Your task to perform on an android device: Go to sound settings Image 0: 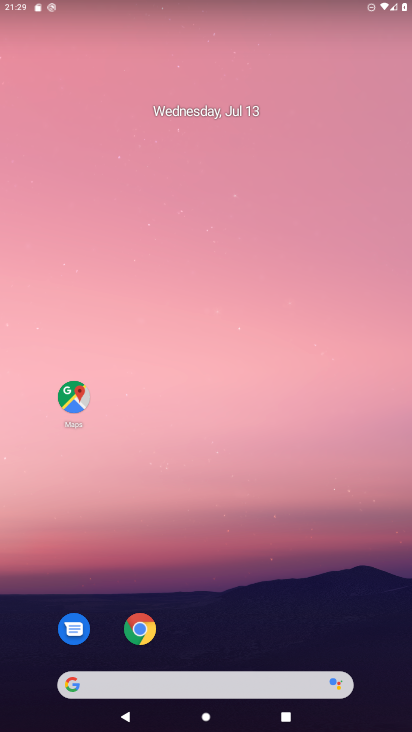
Step 0: drag from (182, 634) to (172, 115)
Your task to perform on an android device: Go to sound settings Image 1: 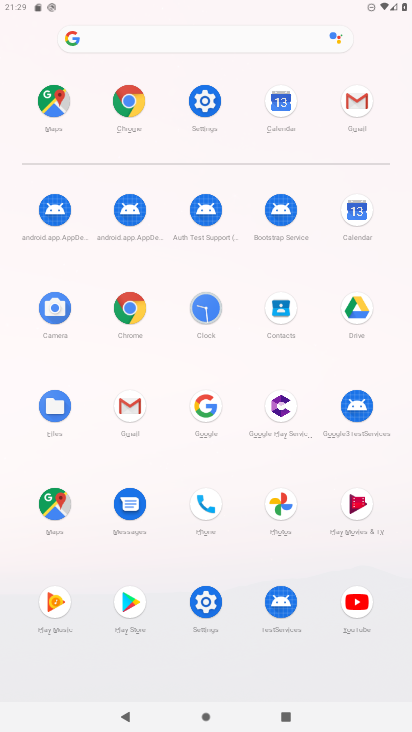
Step 1: click (196, 595)
Your task to perform on an android device: Go to sound settings Image 2: 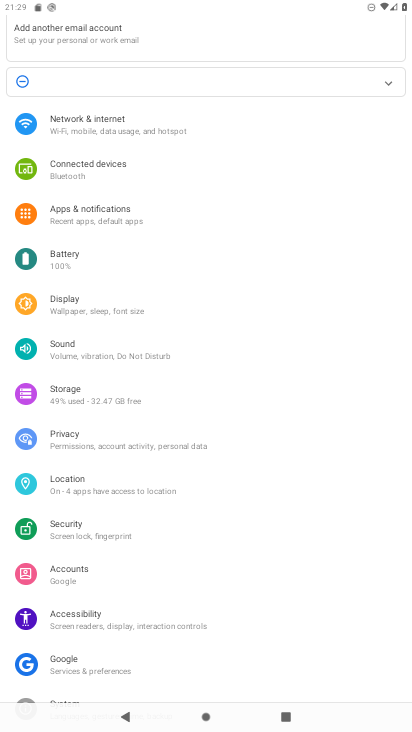
Step 2: drag from (73, 622) to (65, 345)
Your task to perform on an android device: Go to sound settings Image 3: 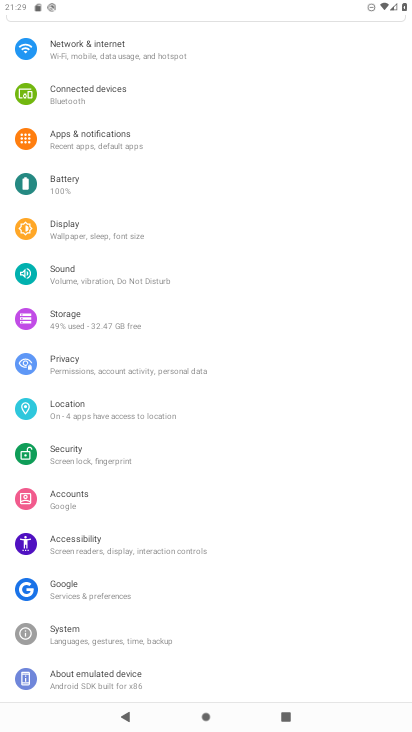
Step 3: click (64, 259)
Your task to perform on an android device: Go to sound settings Image 4: 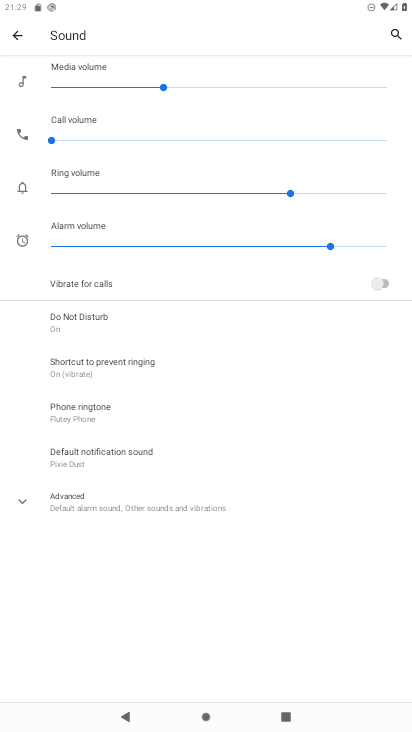
Step 4: task complete